Your task to perform on an android device: Search for pizza restaurants on Maps Image 0: 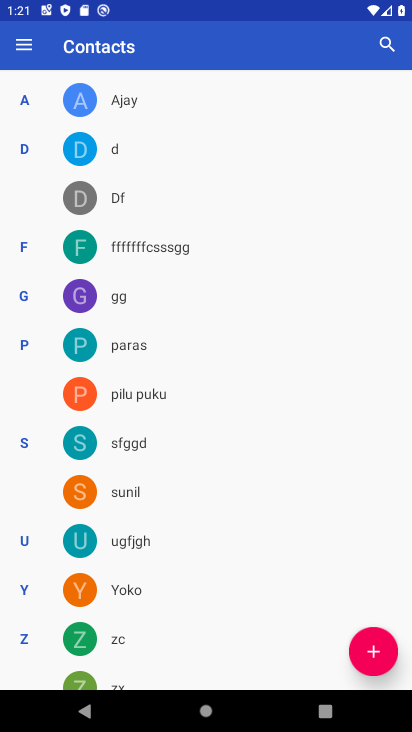
Step 0: press home button
Your task to perform on an android device: Search for pizza restaurants on Maps Image 1: 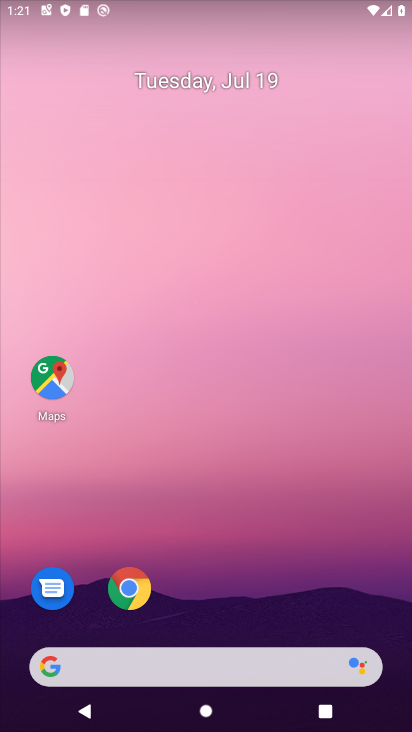
Step 1: click (53, 370)
Your task to perform on an android device: Search for pizza restaurants on Maps Image 2: 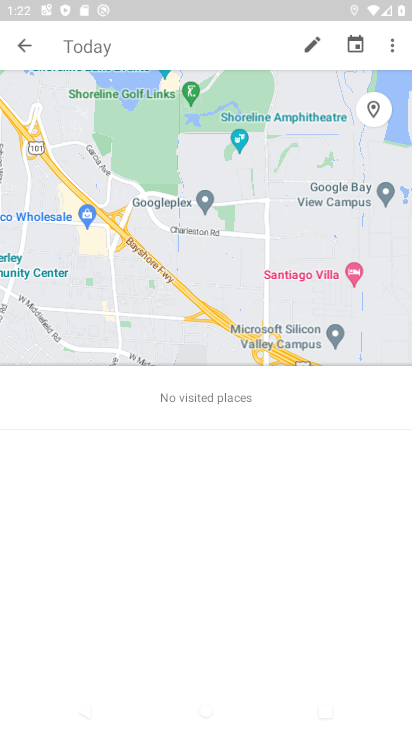
Step 2: click (104, 55)
Your task to perform on an android device: Search for pizza restaurants on Maps Image 3: 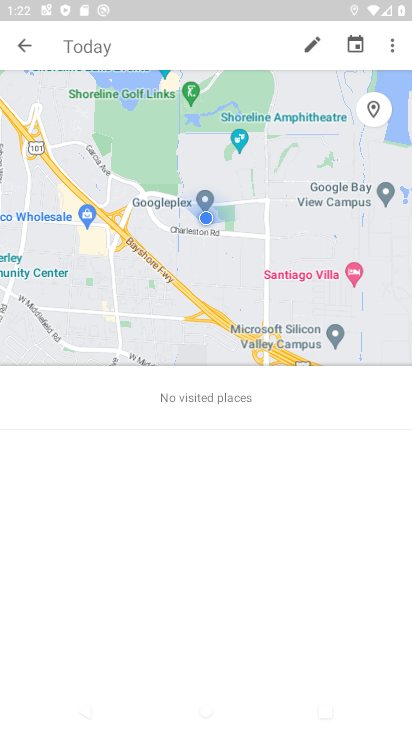
Step 3: click (87, 45)
Your task to perform on an android device: Search for pizza restaurants on Maps Image 4: 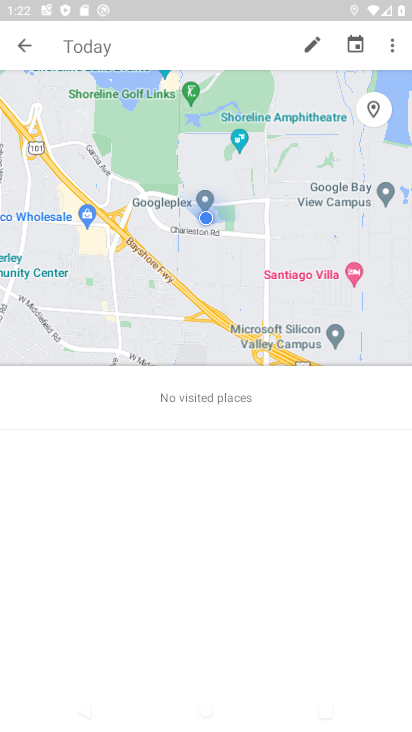
Step 4: click (18, 44)
Your task to perform on an android device: Search for pizza restaurants on Maps Image 5: 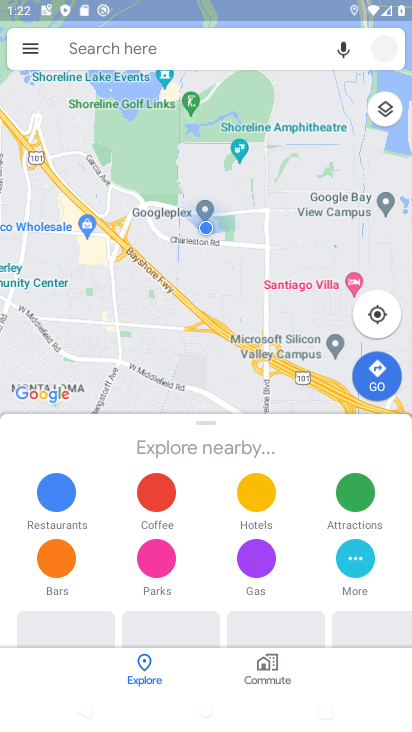
Step 5: click (101, 48)
Your task to perform on an android device: Search for pizza restaurants on Maps Image 6: 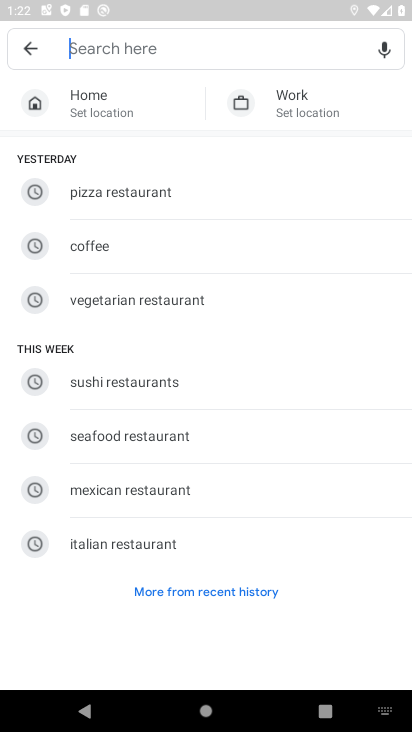
Step 6: click (113, 186)
Your task to perform on an android device: Search for pizza restaurants on Maps Image 7: 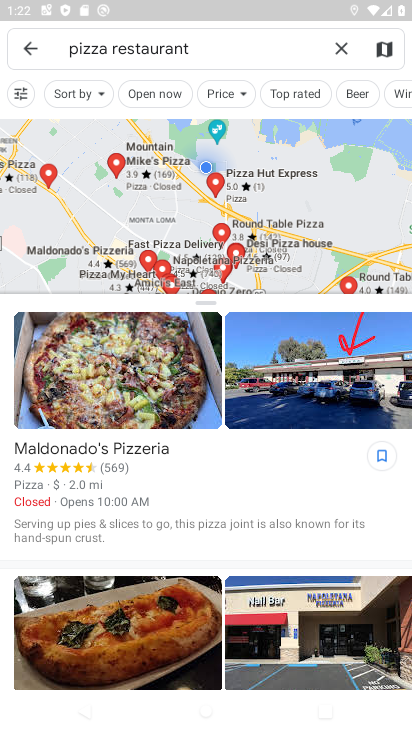
Step 7: task complete